Your task to perform on an android device: Show me popular videos on Youtube Image 0: 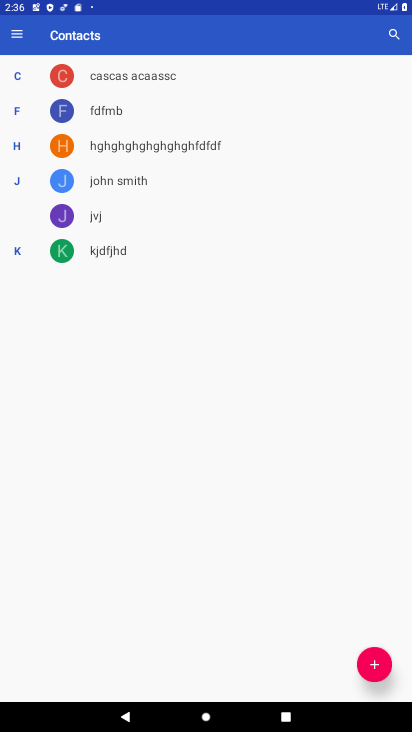
Step 0: press home button
Your task to perform on an android device: Show me popular videos on Youtube Image 1: 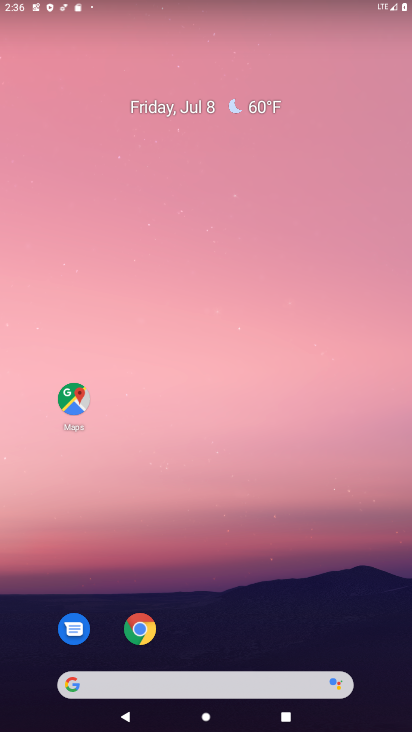
Step 1: drag from (189, 640) to (199, 256)
Your task to perform on an android device: Show me popular videos on Youtube Image 2: 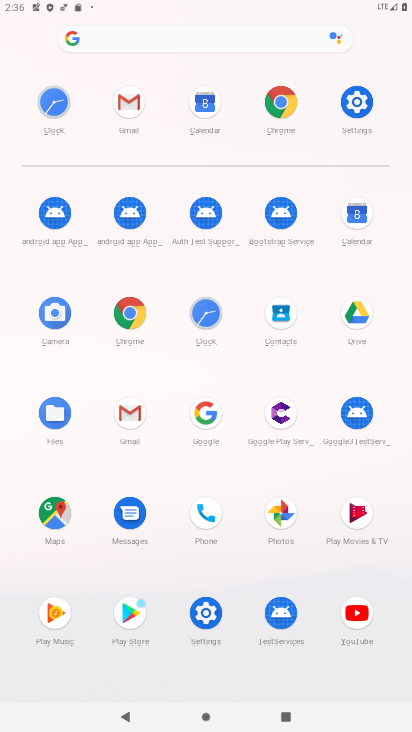
Step 2: click (338, 609)
Your task to perform on an android device: Show me popular videos on Youtube Image 3: 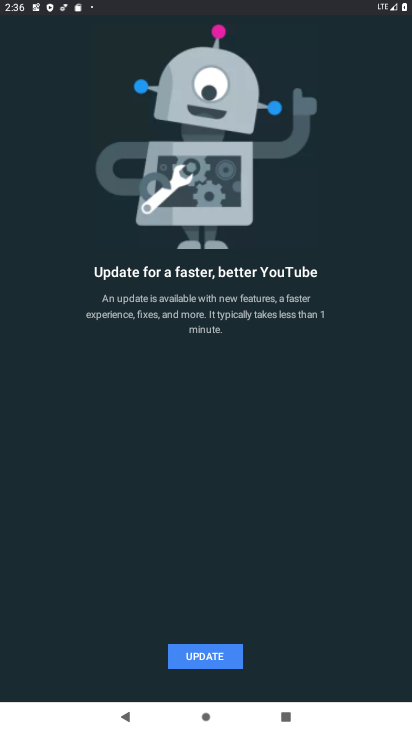
Step 3: click (201, 653)
Your task to perform on an android device: Show me popular videos on Youtube Image 4: 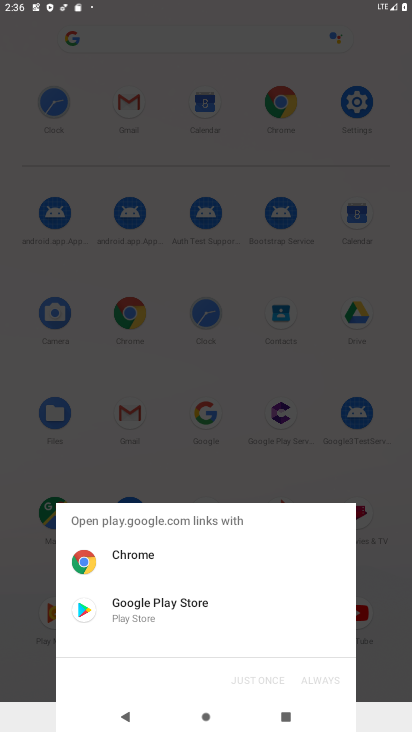
Step 4: click (155, 618)
Your task to perform on an android device: Show me popular videos on Youtube Image 5: 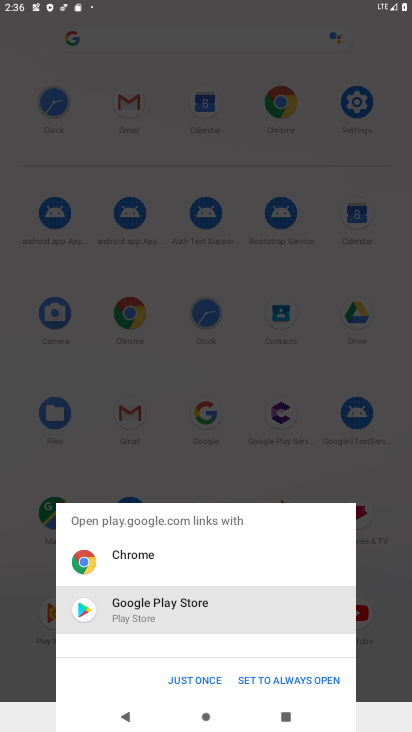
Step 5: click (188, 683)
Your task to perform on an android device: Show me popular videos on Youtube Image 6: 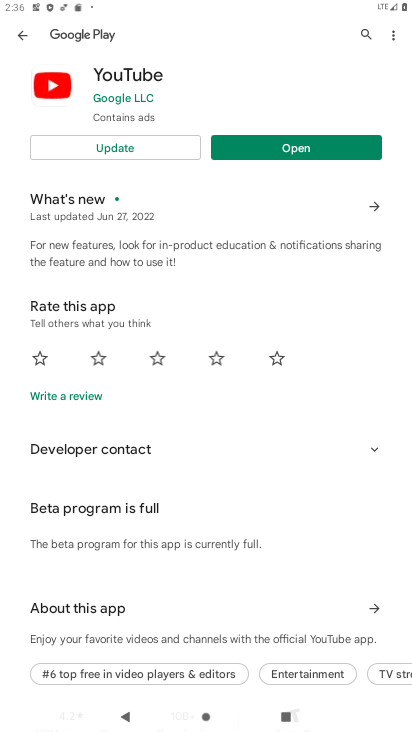
Step 6: click (130, 150)
Your task to perform on an android device: Show me popular videos on Youtube Image 7: 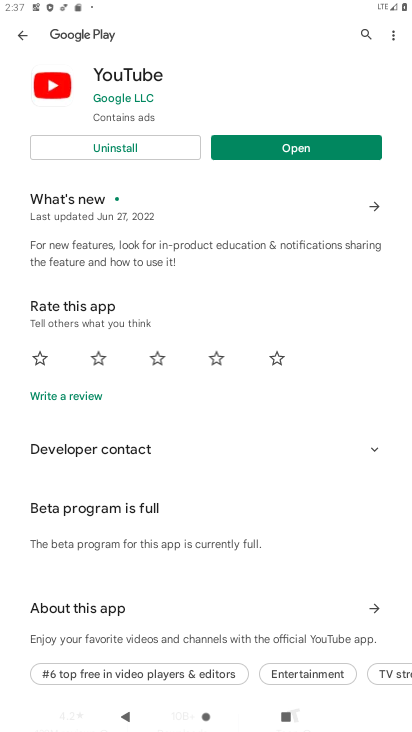
Step 7: click (299, 147)
Your task to perform on an android device: Show me popular videos on Youtube Image 8: 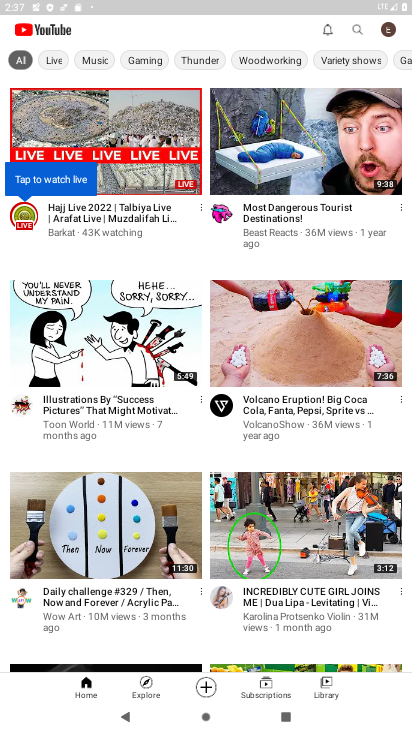
Step 8: click (355, 29)
Your task to perform on an android device: Show me popular videos on Youtube Image 9: 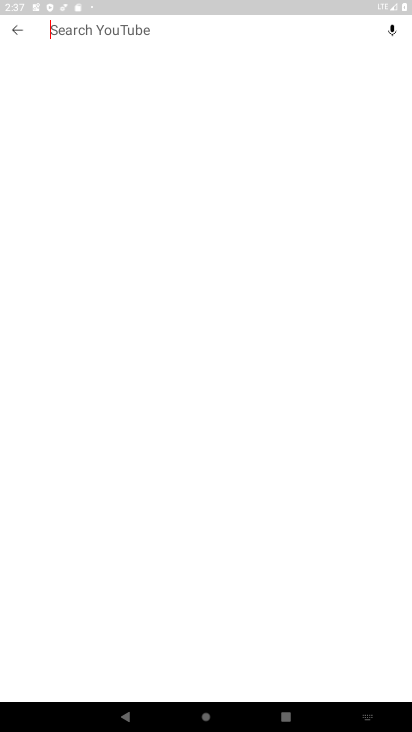
Step 9: type "popular videos"
Your task to perform on an android device: Show me popular videos on Youtube Image 10: 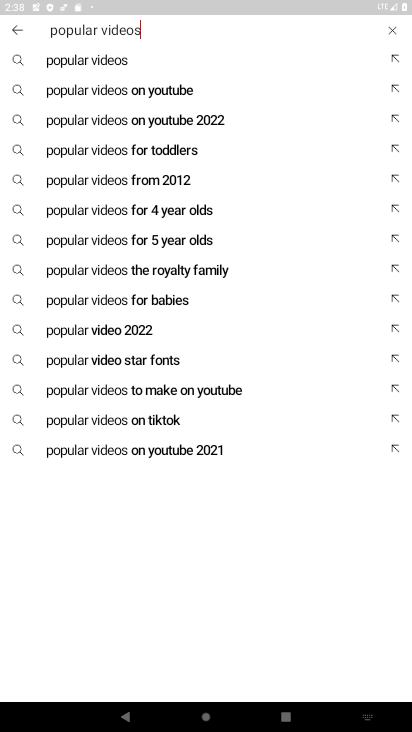
Step 10: click (139, 88)
Your task to perform on an android device: Show me popular videos on Youtube Image 11: 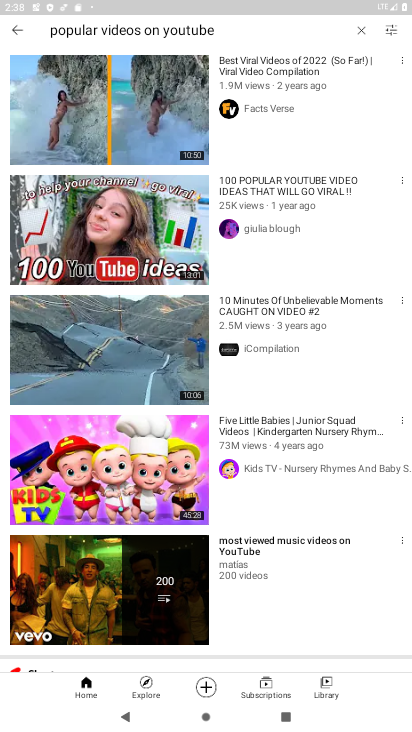
Step 11: task complete